Your task to perform on an android device: see sites visited before in the chrome app Image 0: 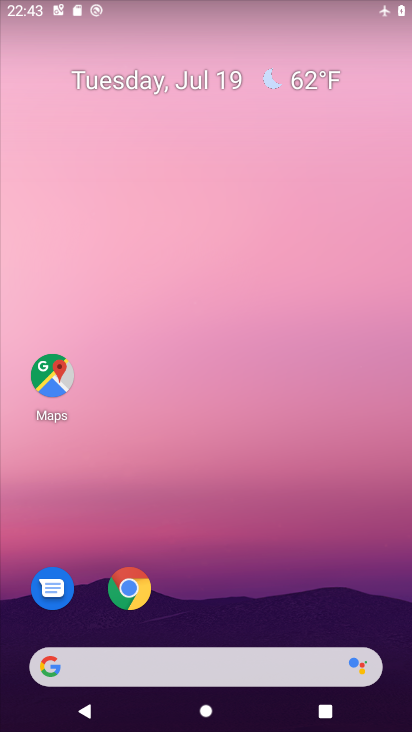
Step 0: click (132, 579)
Your task to perform on an android device: see sites visited before in the chrome app Image 1: 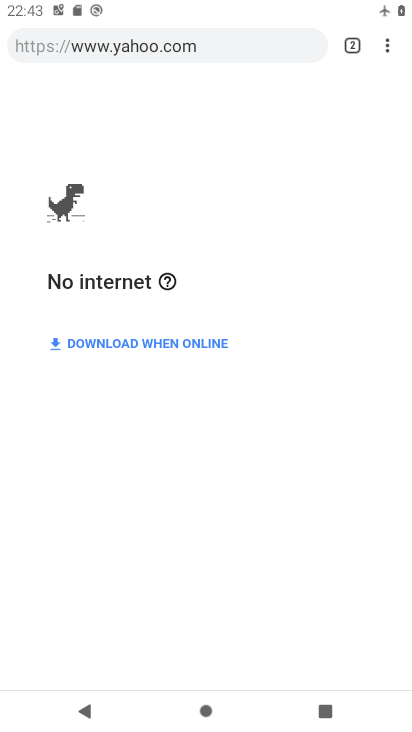
Step 1: click (392, 46)
Your task to perform on an android device: see sites visited before in the chrome app Image 2: 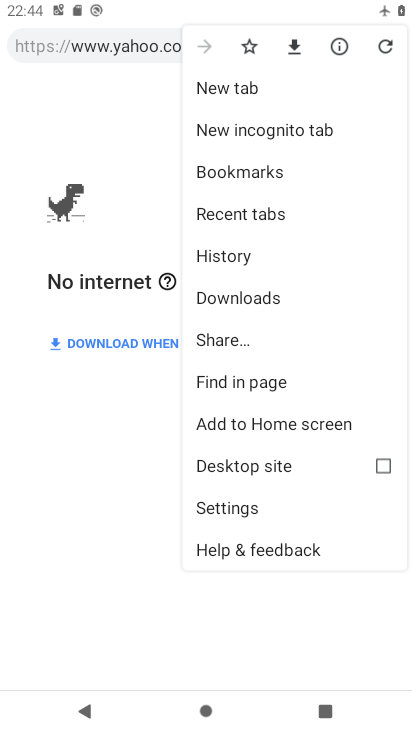
Step 2: click (225, 253)
Your task to perform on an android device: see sites visited before in the chrome app Image 3: 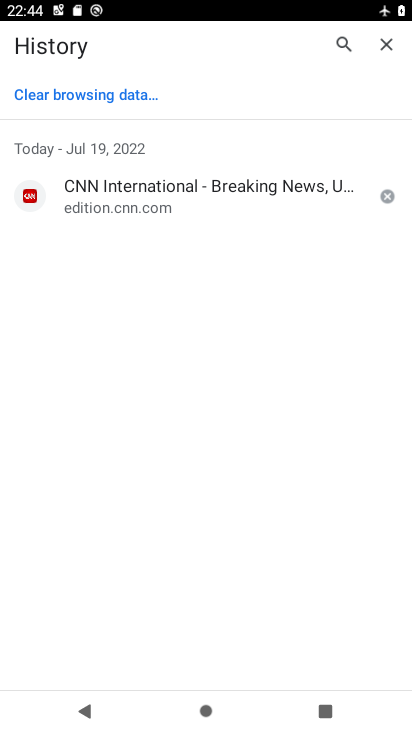
Step 3: task complete